Your task to perform on an android device: Open Google Chrome Image 0: 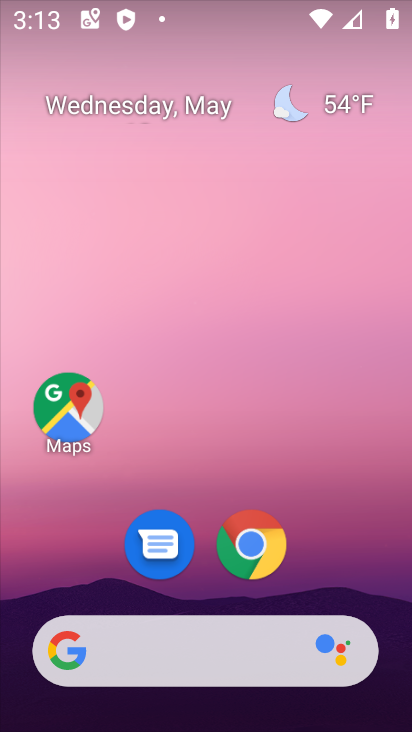
Step 0: click (250, 550)
Your task to perform on an android device: Open Google Chrome Image 1: 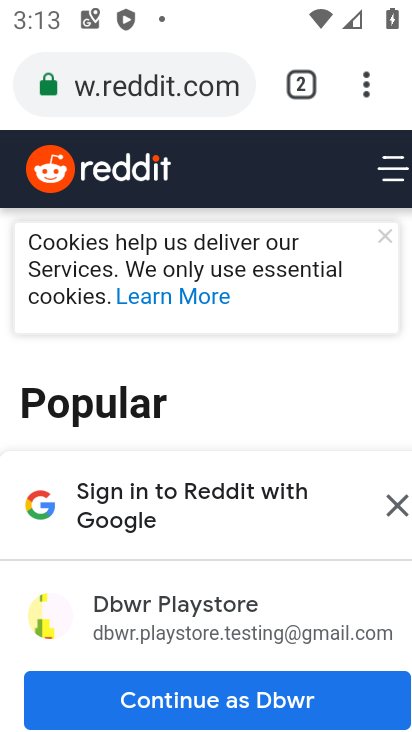
Step 1: task complete